Your task to perform on an android device: Go to Maps Image 0: 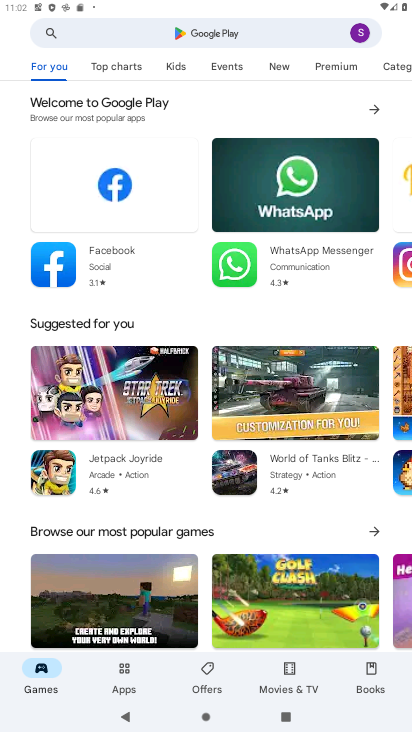
Step 0: press home button
Your task to perform on an android device: Go to Maps Image 1: 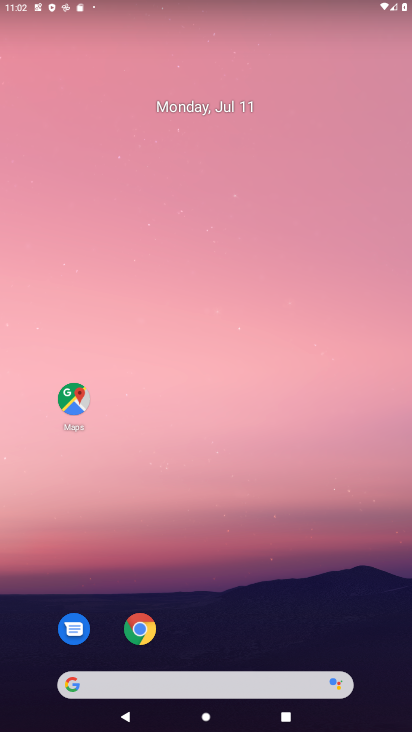
Step 1: click (71, 413)
Your task to perform on an android device: Go to Maps Image 2: 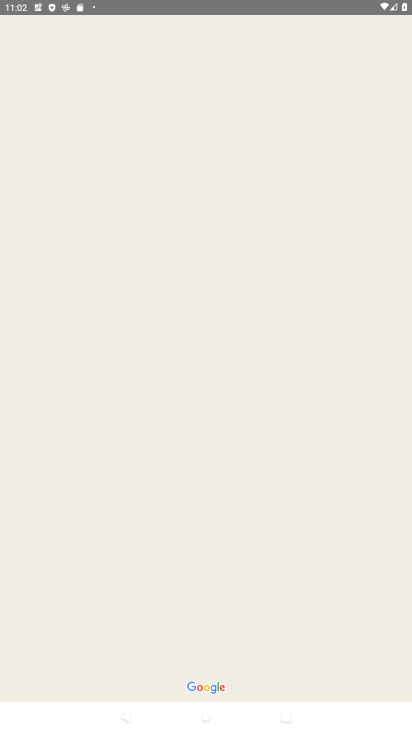
Step 2: task complete